Your task to perform on an android device: Go to Maps Image 0: 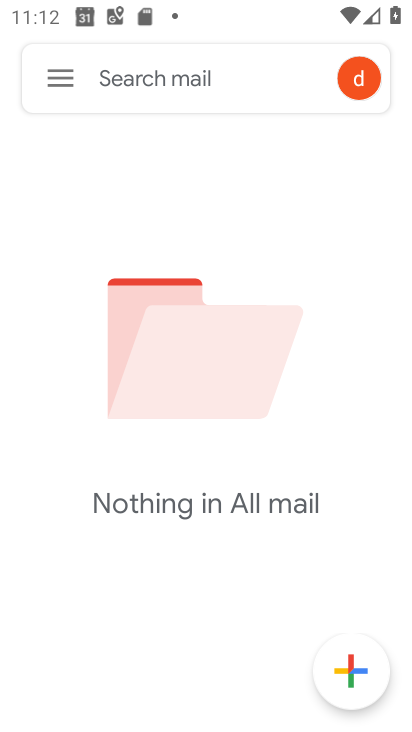
Step 0: press home button
Your task to perform on an android device: Go to Maps Image 1: 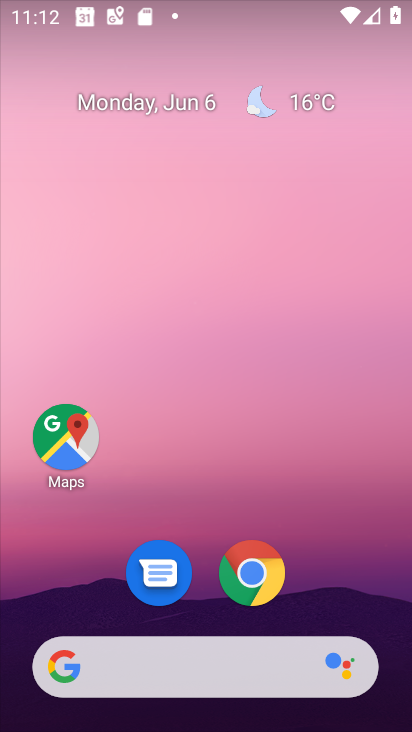
Step 1: click (88, 445)
Your task to perform on an android device: Go to Maps Image 2: 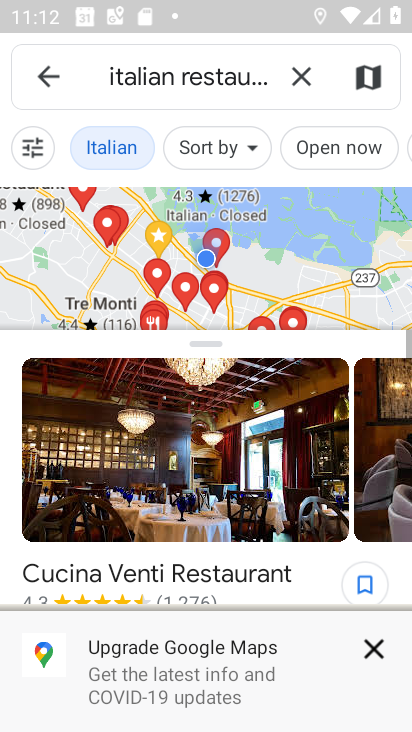
Step 2: click (49, 86)
Your task to perform on an android device: Go to Maps Image 3: 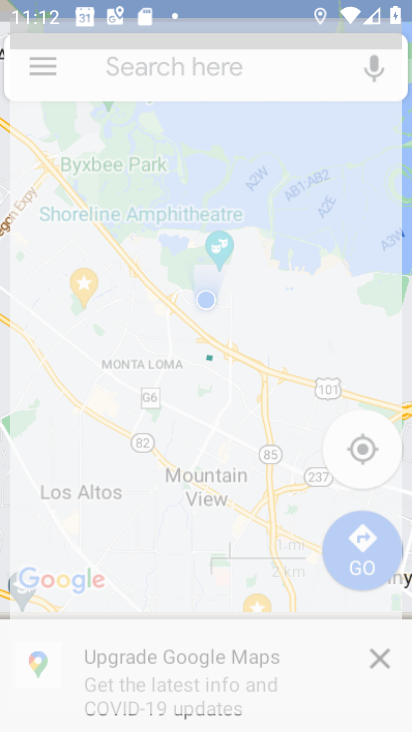
Step 3: task complete